Your task to perform on an android device: Open calendar and show me the first week of next month Image 0: 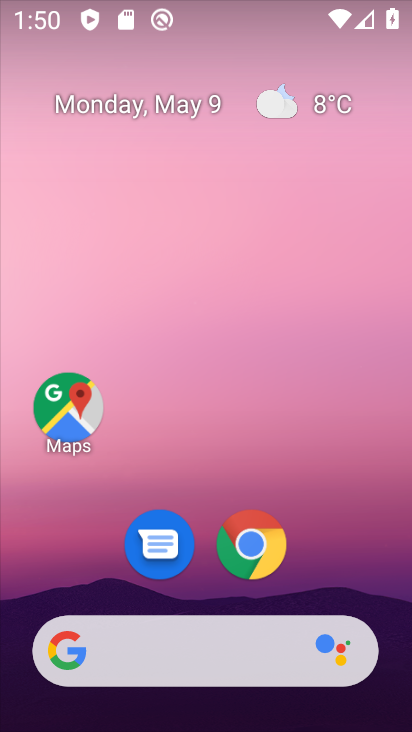
Step 0: drag from (237, 603) to (288, 194)
Your task to perform on an android device: Open calendar and show me the first week of next month Image 1: 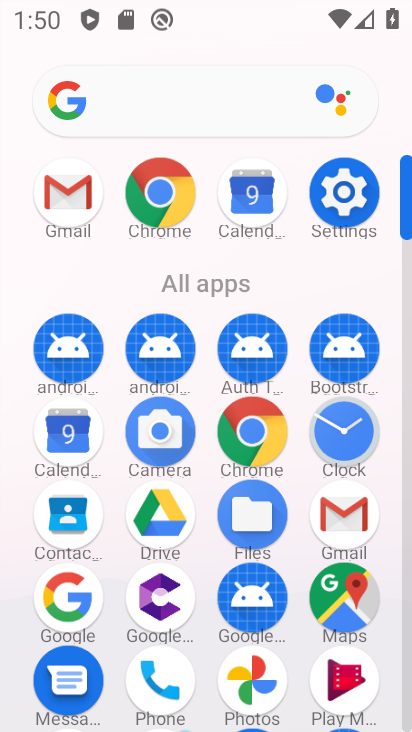
Step 1: click (85, 419)
Your task to perform on an android device: Open calendar and show me the first week of next month Image 2: 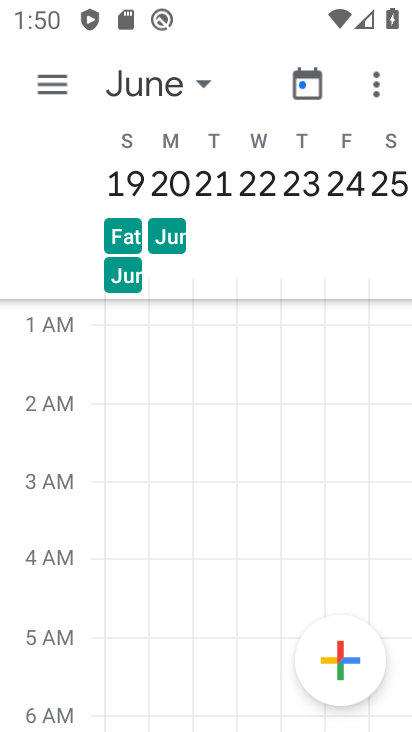
Step 2: click (167, 92)
Your task to perform on an android device: Open calendar and show me the first week of next month Image 3: 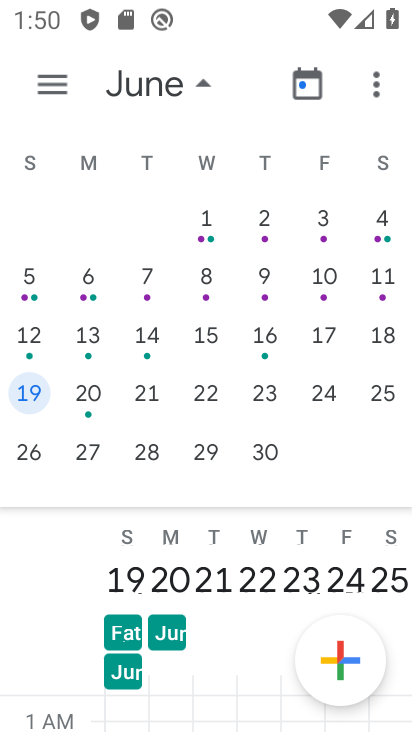
Step 3: click (34, 277)
Your task to perform on an android device: Open calendar and show me the first week of next month Image 4: 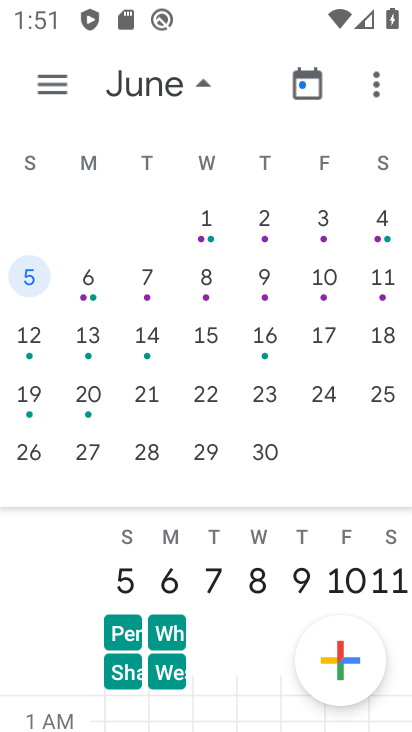
Step 4: click (203, 80)
Your task to perform on an android device: Open calendar and show me the first week of next month Image 5: 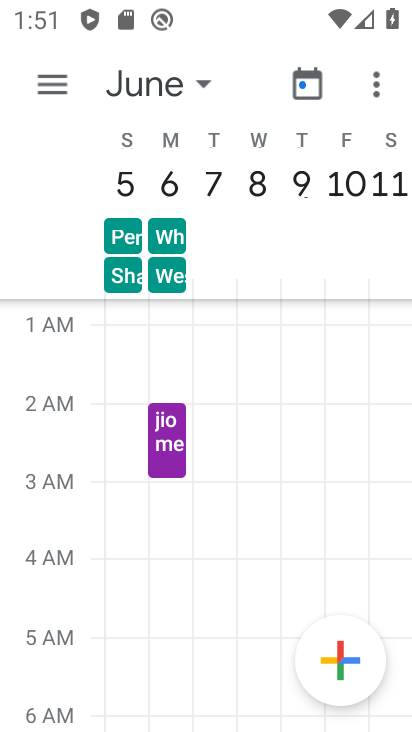
Step 5: click (178, 85)
Your task to perform on an android device: Open calendar and show me the first week of next month Image 6: 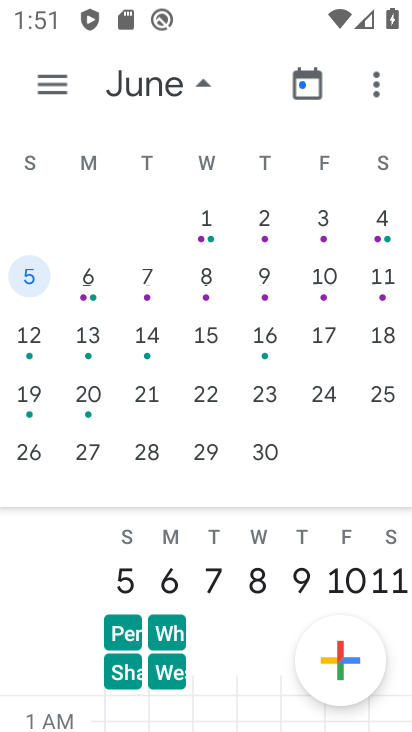
Step 6: click (178, 85)
Your task to perform on an android device: Open calendar and show me the first week of next month Image 7: 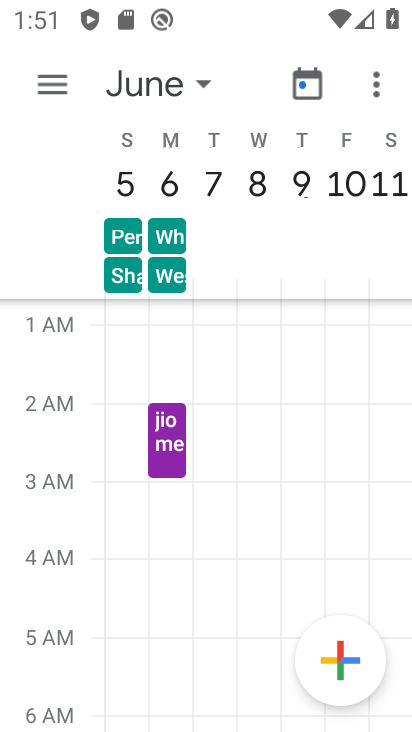
Step 7: task complete